Your task to perform on an android device: Open Reddit.com Image 0: 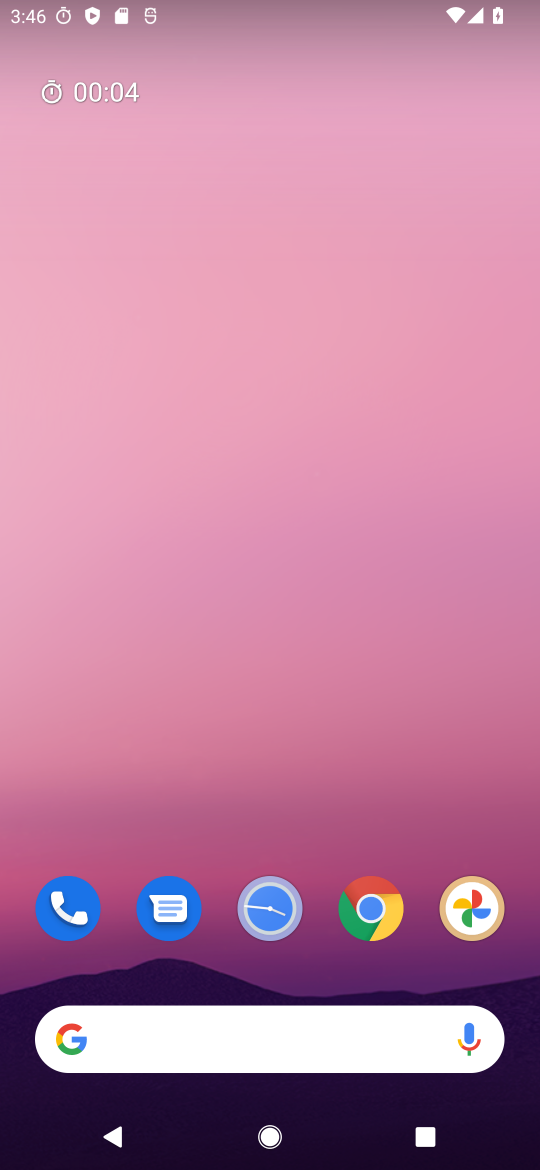
Step 0: press home button
Your task to perform on an android device: Open Reddit.com Image 1: 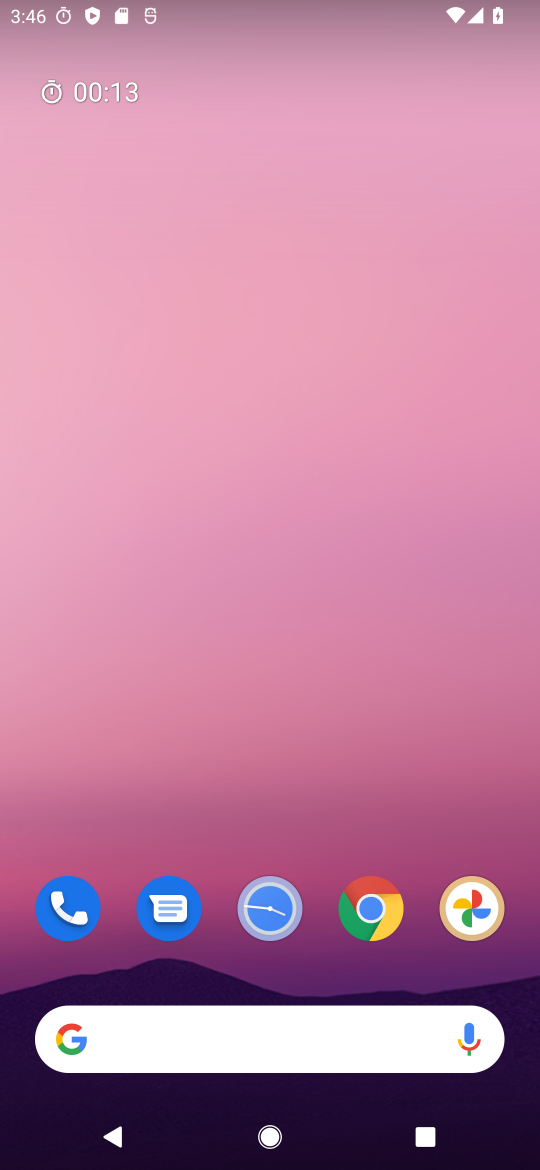
Step 1: click (366, 900)
Your task to perform on an android device: Open Reddit.com Image 2: 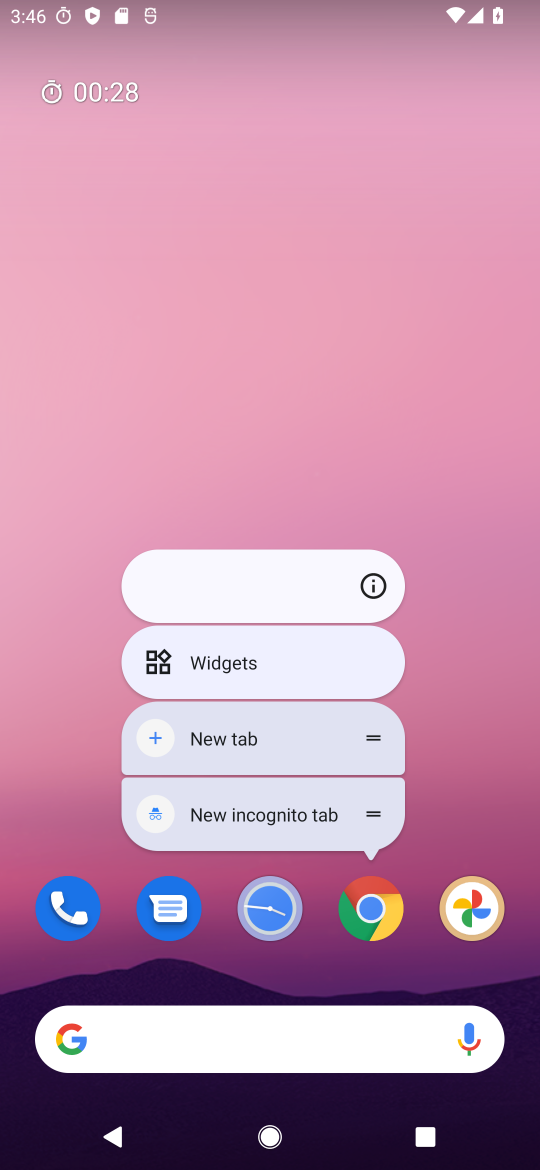
Step 2: click (367, 905)
Your task to perform on an android device: Open Reddit.com Image 3: 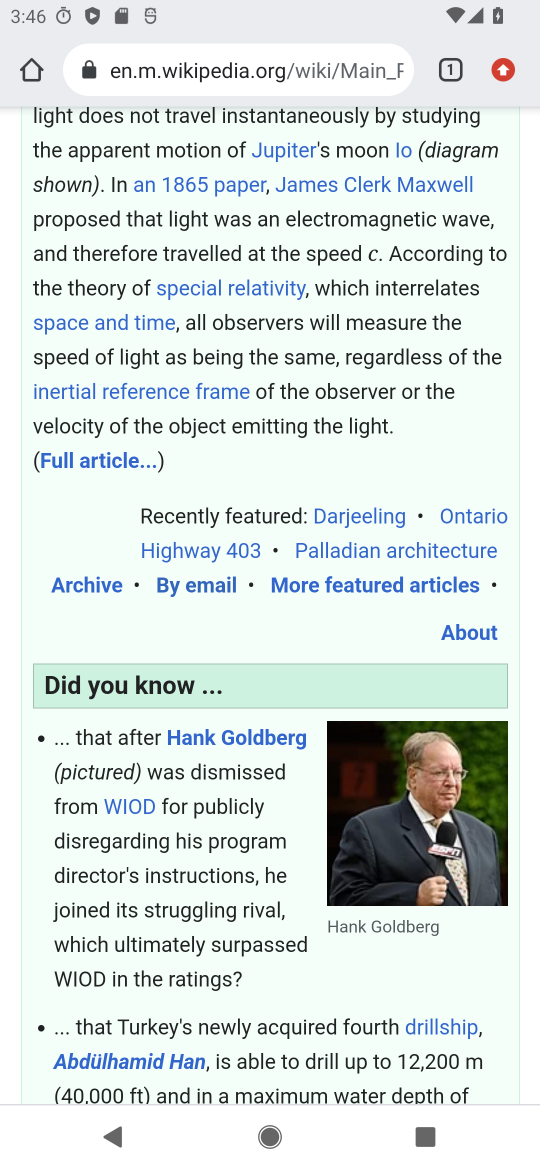
Step 3: drag from (251, 975) to (255, 473)
Your task to perform on an android device: Open Reddit.com Image 4: 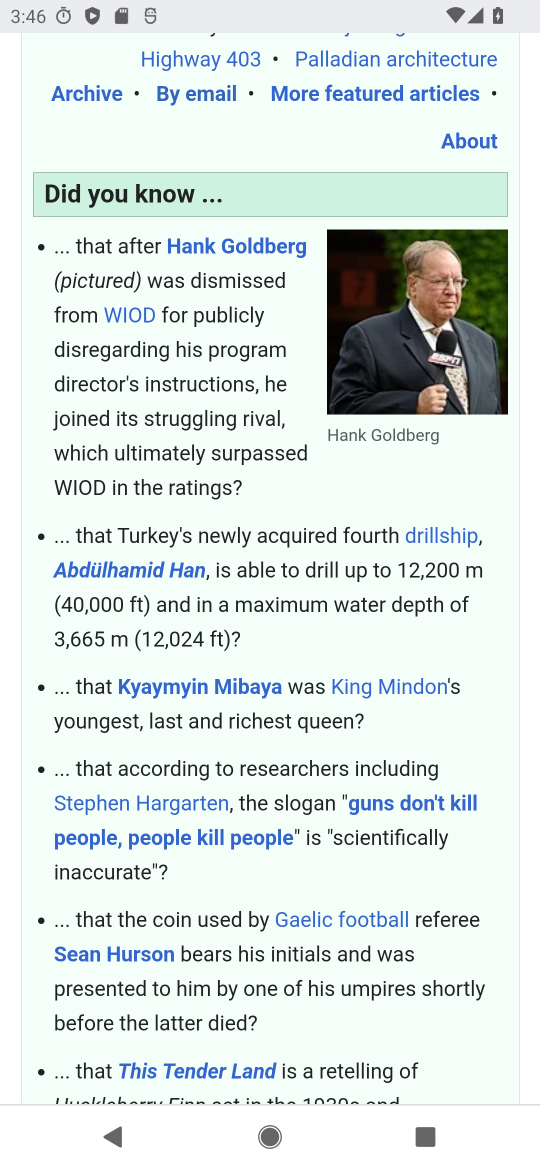
Step 4: drag from (257, 141) to (273, 671)
Your task to perform on an android device: Open Reddit.com Image 5: 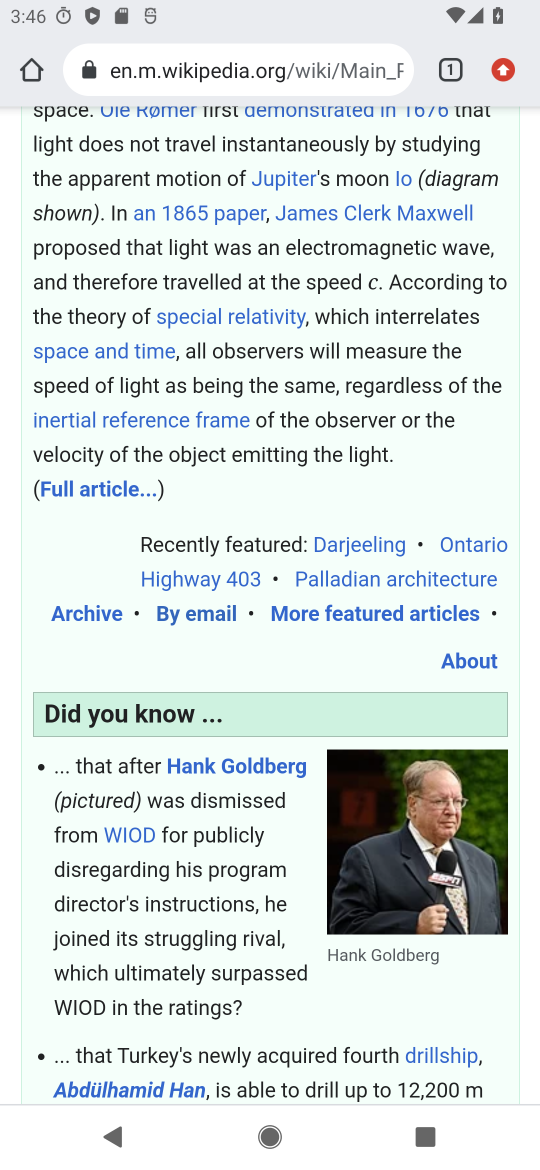
Step 5: click (447, 58)
Your task to perform on an android device: Open Reddit.com Image 6: 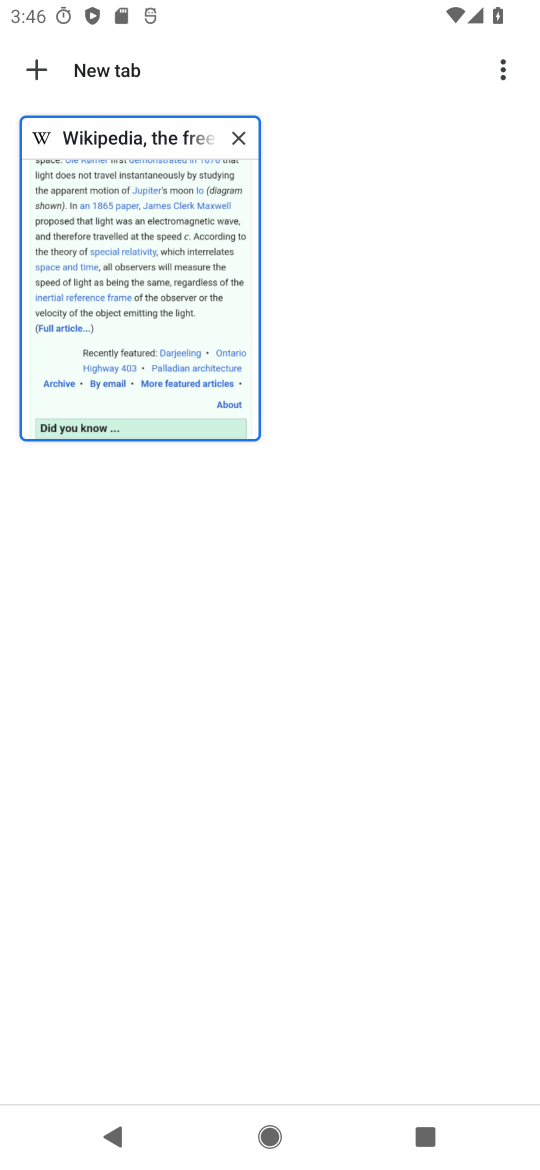
Step 6: click (32, 74)
Your task to perform on an android device: Open Reddit.com Image 7: 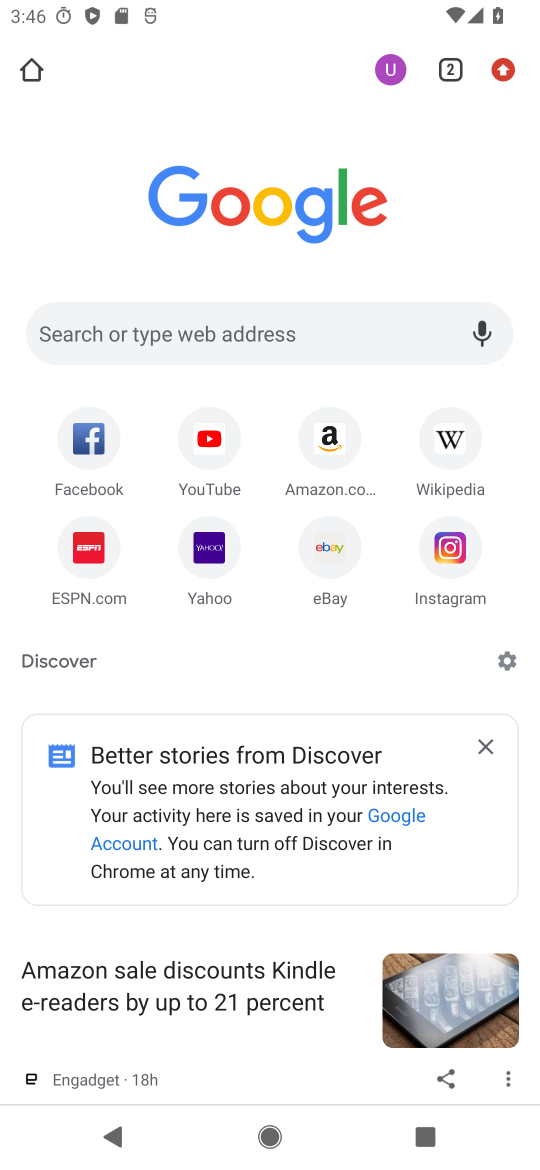
Step 7: click (129, 328)
Your task to perform on an android device: Open Reddit.com Image 8: 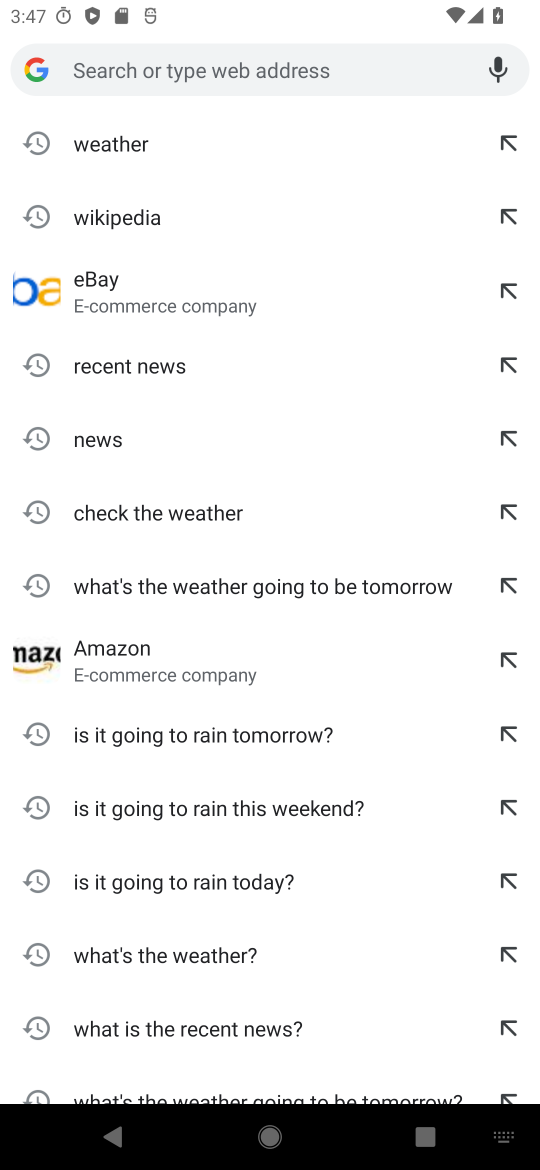
Step 8: type "reddit.com"
Your task to perform on an android device: Open Reddit.com Image 9: 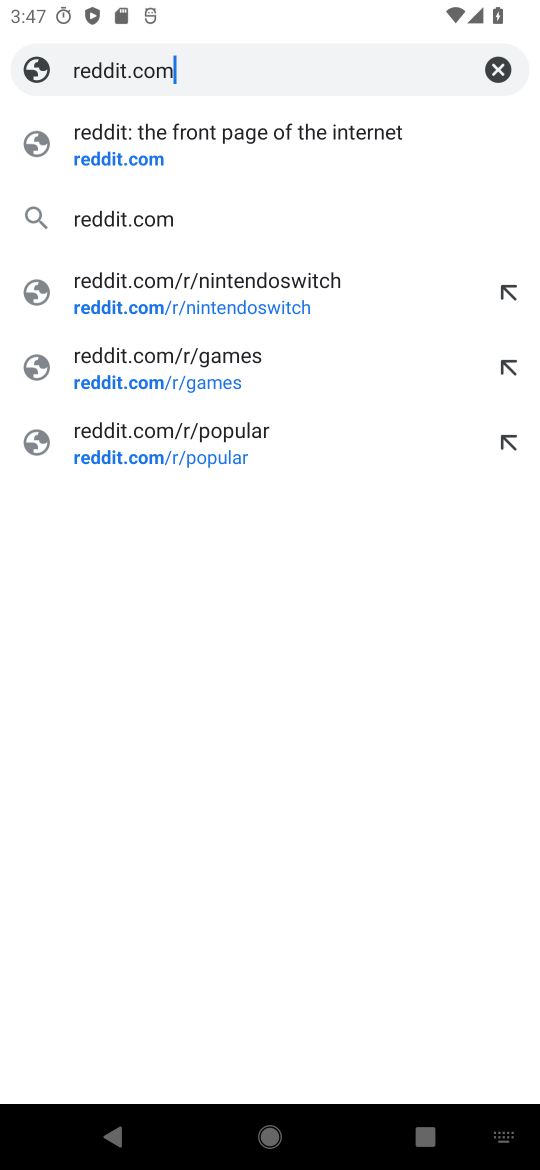
Step 9: click (178, 142)
Your task to perform on an android device: Open Reddit.com Image 10: 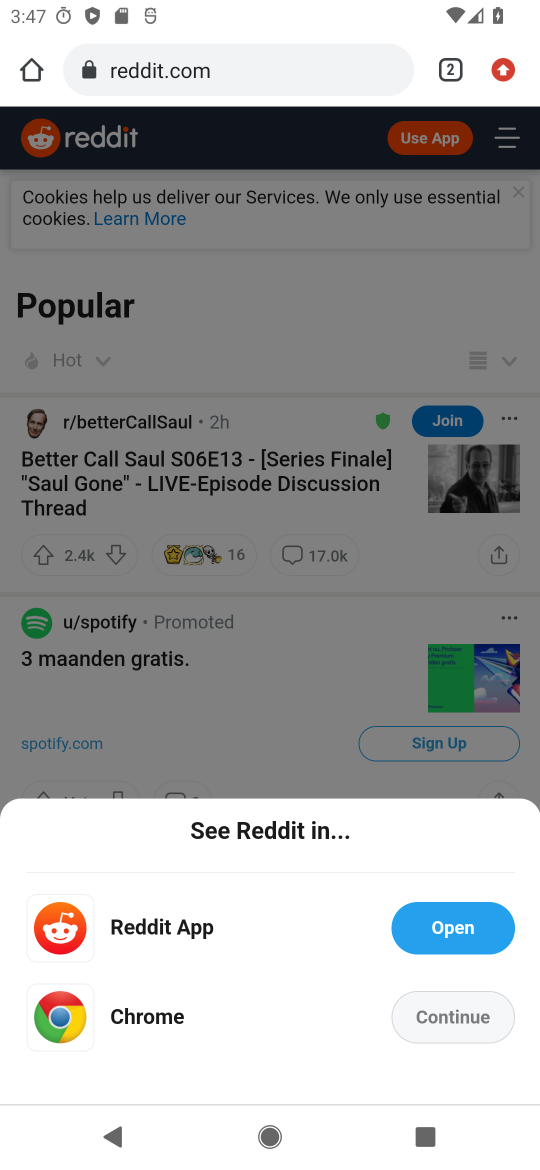
Step 10: click (449, 1016)
Your task to perform on an android device: Open Reddit.com Image 11: 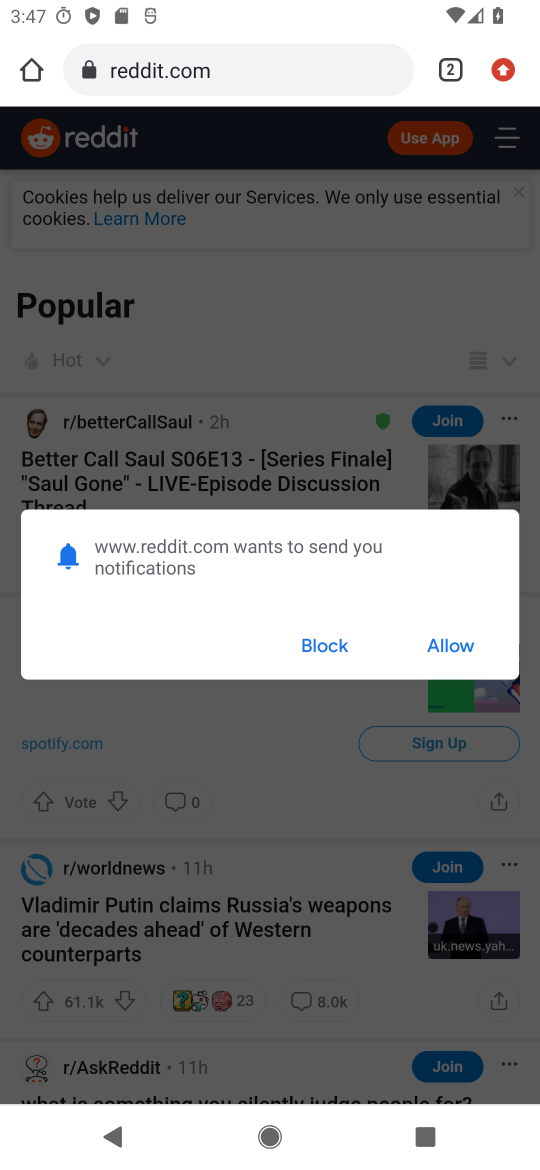
Step 11: click (455, 664)
Your task to perform on an android device: Open Reddit.com Image 12: 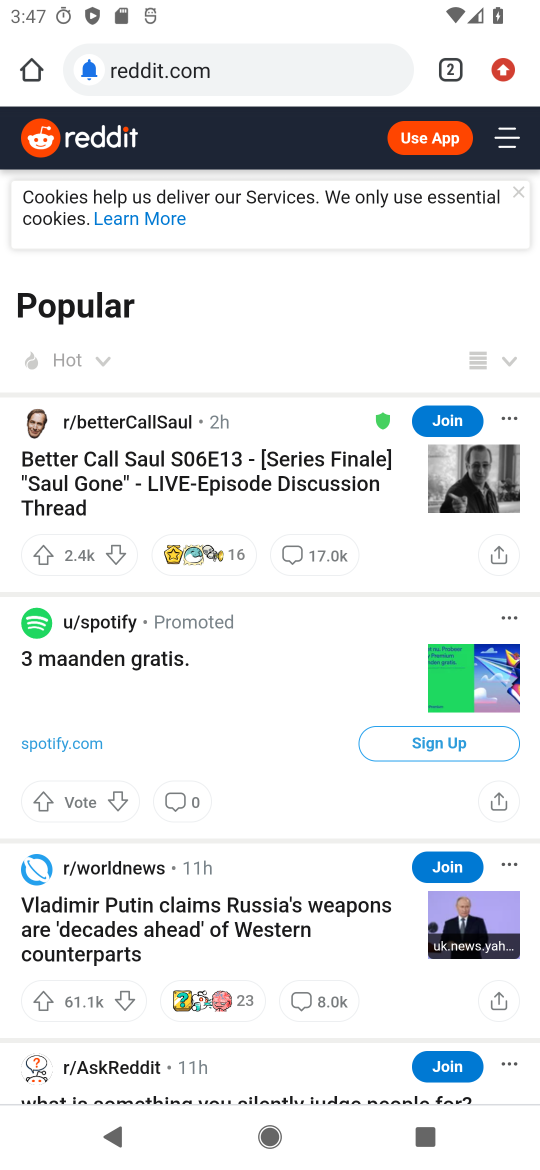
Step 12: task complete